Your task to perform on an android device: What's the weather? Image 0: 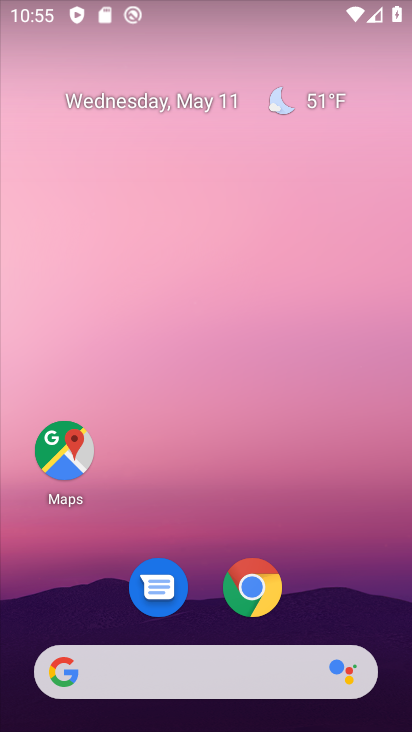
Step 0: click (283, 98)
Your task to perform on an android device: What's the weather? Image 1: 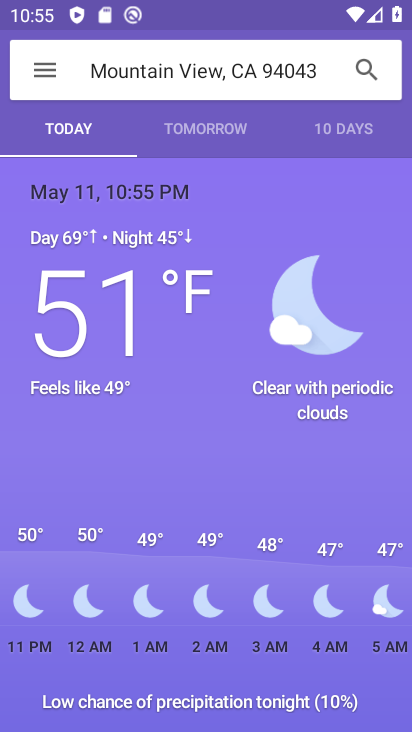
Step 1: task complete